Your task to perform on an android device: move an email to a new category in the gmail app Image 0: 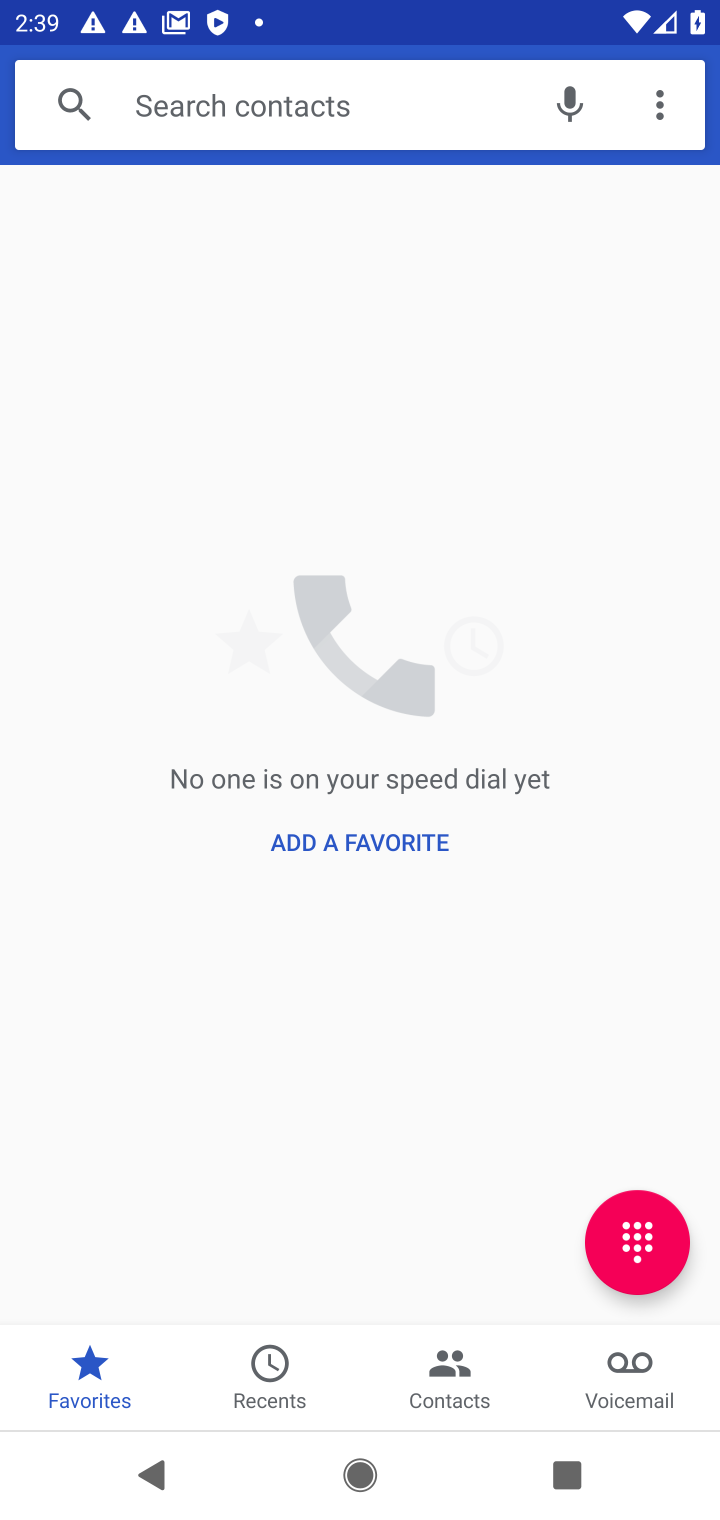
Step 0: press home button
Your task to perform on an android device: move an email to a new category in the gmail app Image 1: 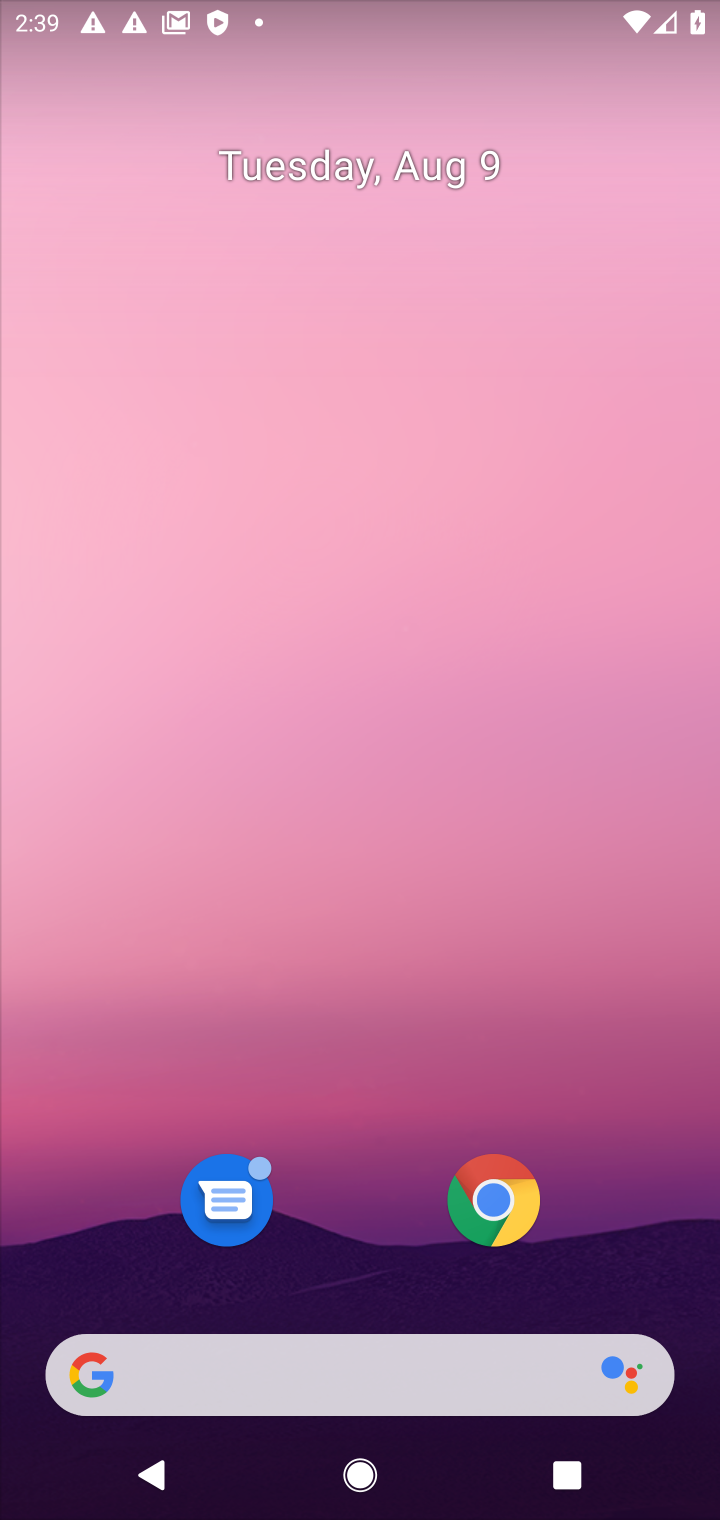
Step 1: drag from (313, 1143) to (227, 92)
Your task to perform on an android device: move an email to a new category in the gmail app Image 2: 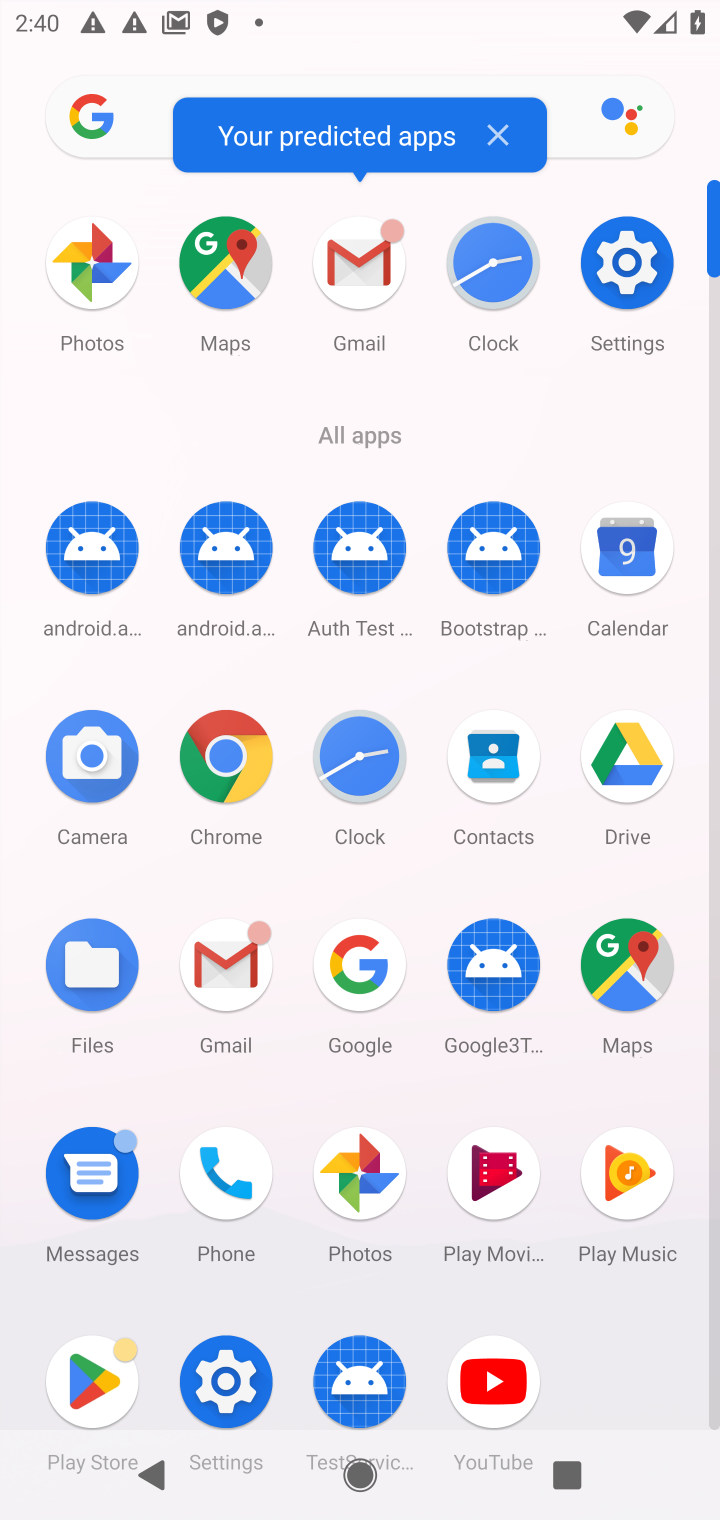
Step 2: click (220, 1002)
Your task to perform on an android device: move an email to a new category in the gmail app Image 3: 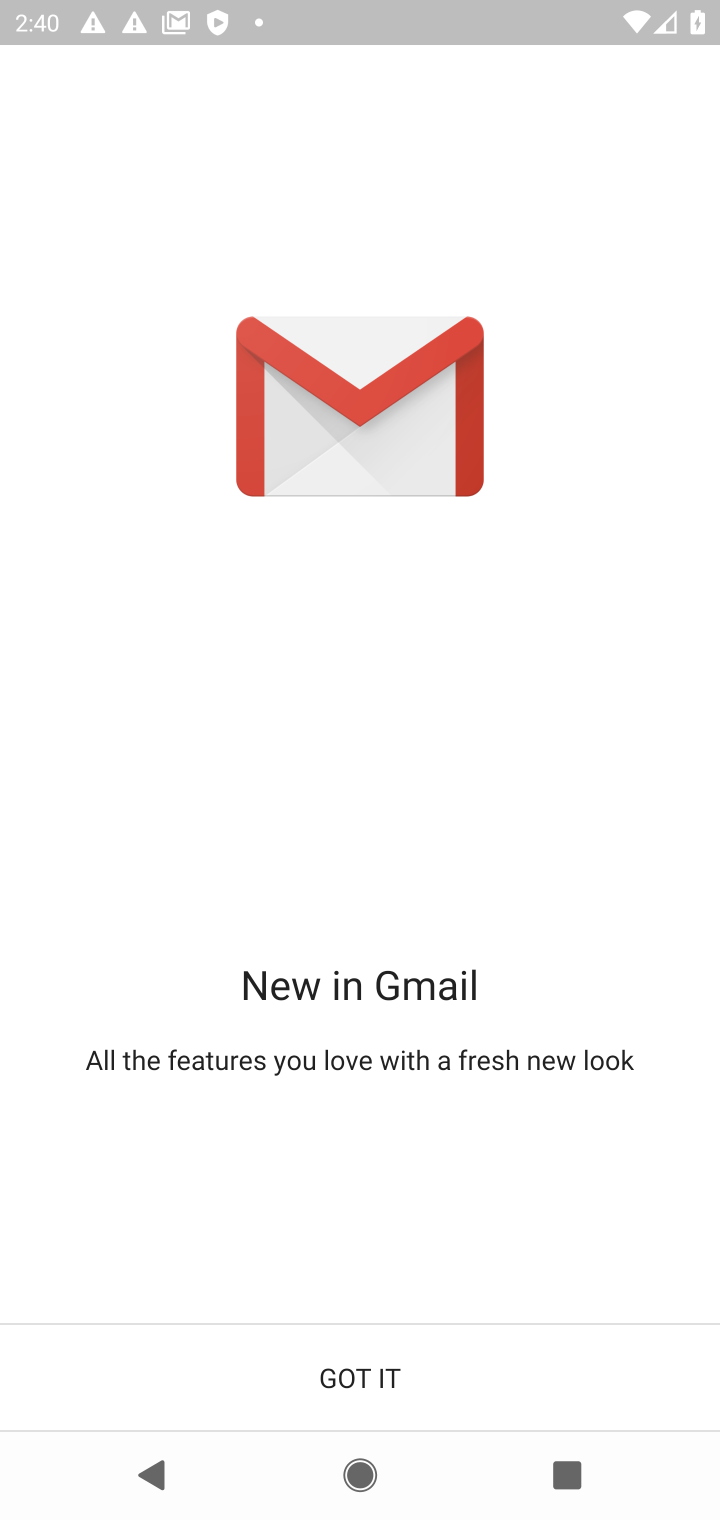
Step 3: click (355, 1389)
Your task to perform on an android device: move an email to a new category in the gmail app Image 4: 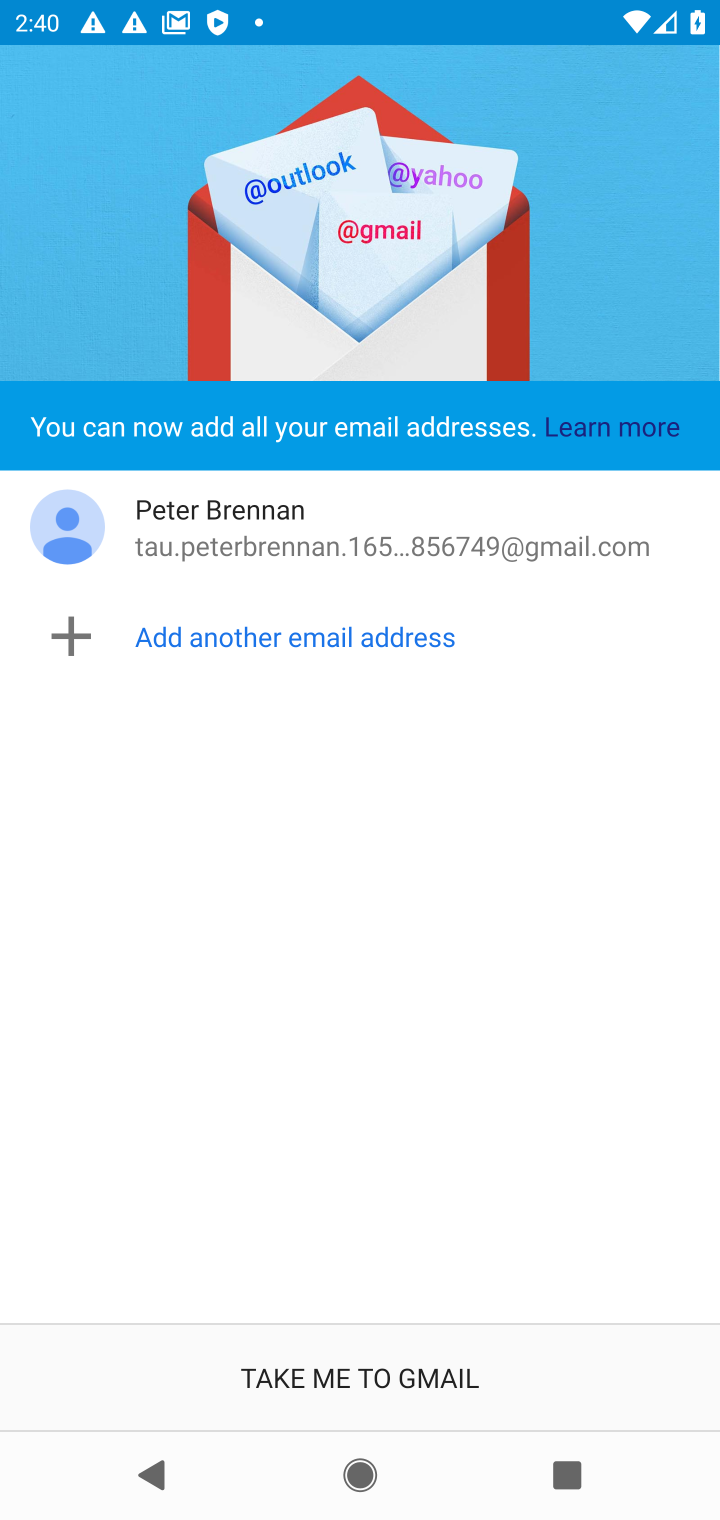
Step 4: click (351, 1386)
Your task to perform on an android device: move an email to a new category in the gmail app Image 5: 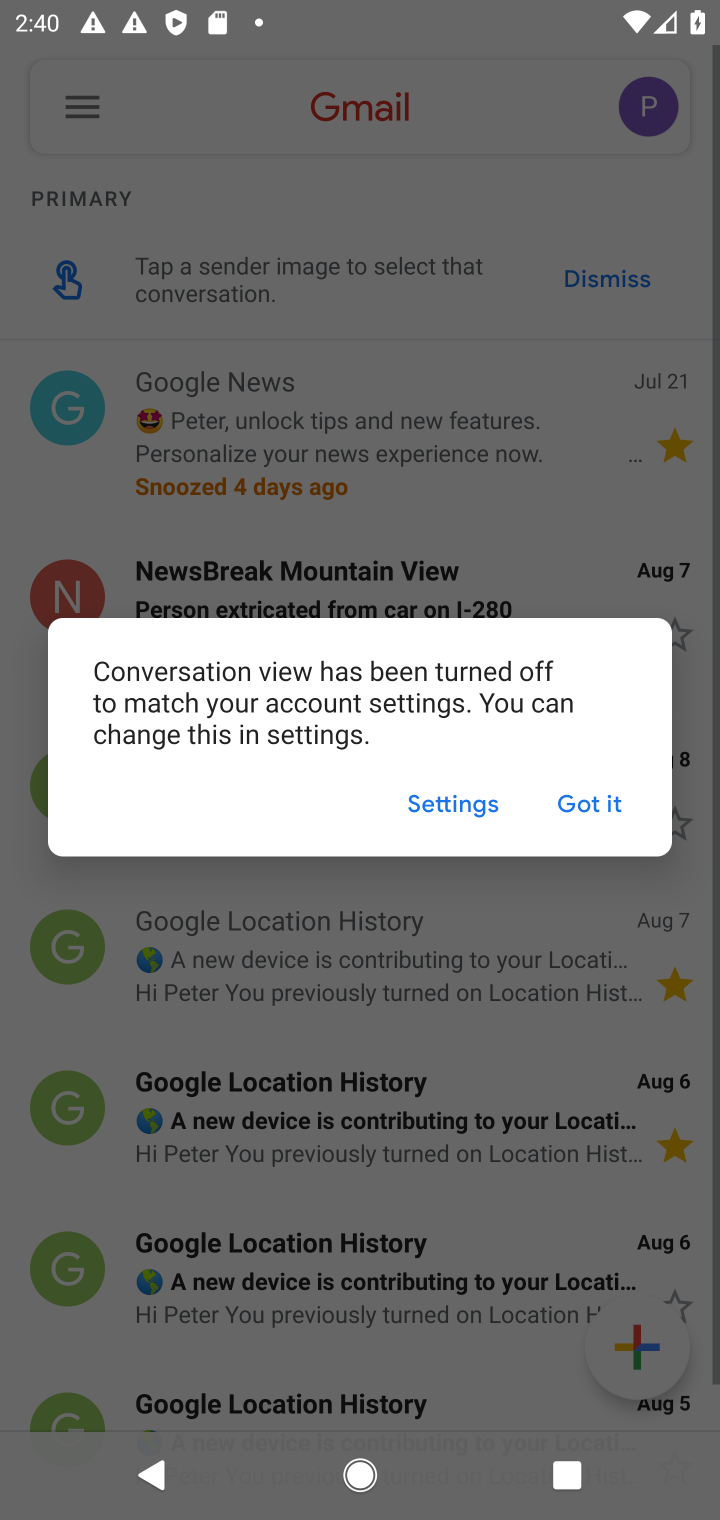
Step 5: click (562, 825)
Your task to perform on an android device: move an email to a new category in the gmail app Image 6: 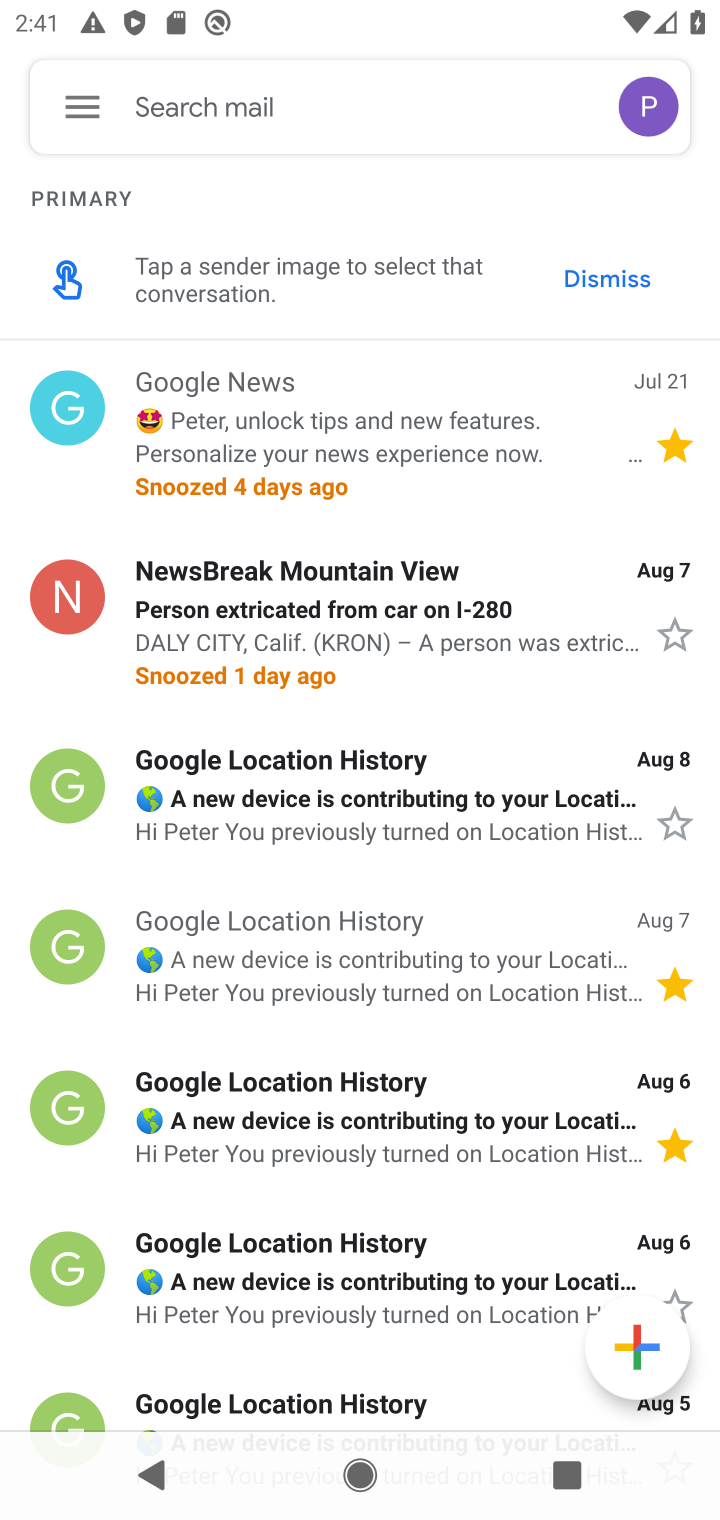
Step 6: click (324, 597)
Your task to perform on an android device: move an email to a new category in the gmail app Image 7: 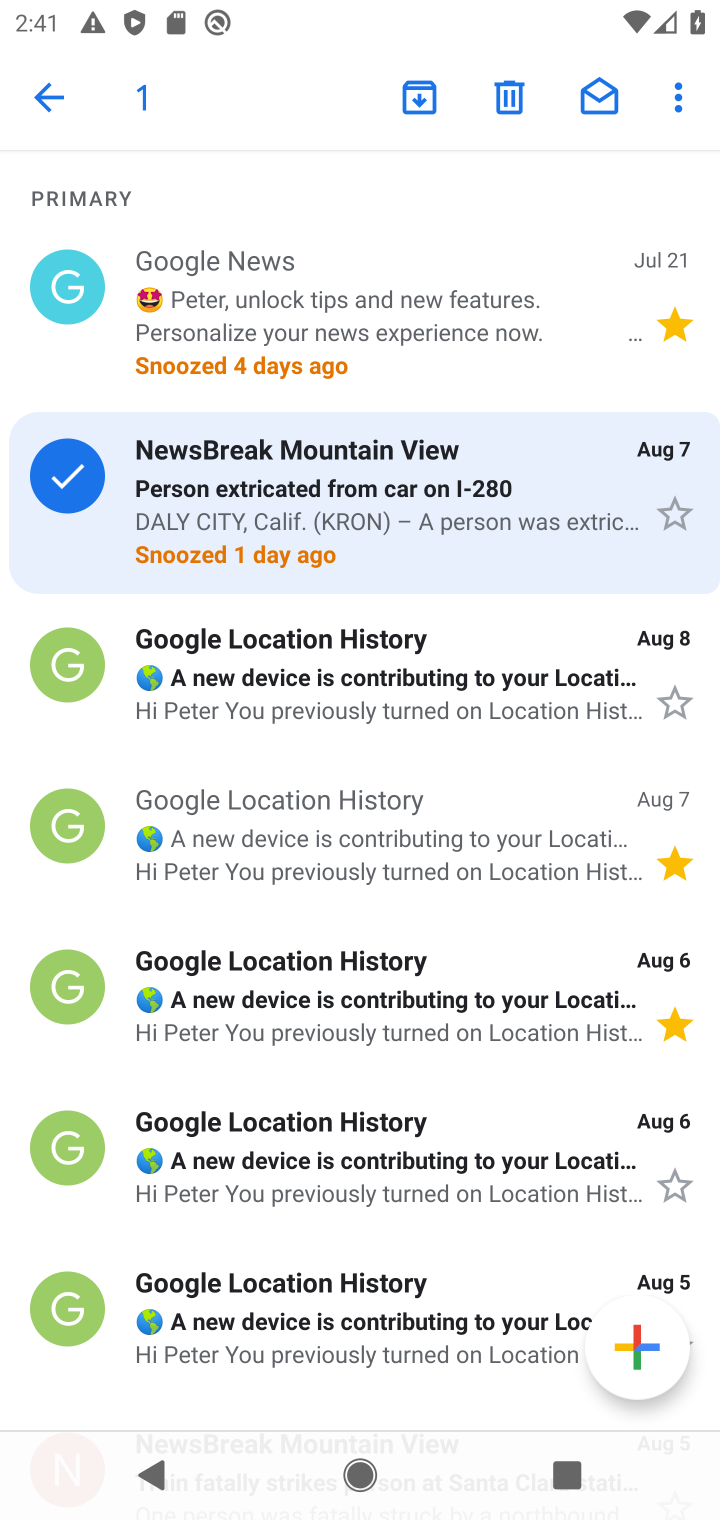
Step 7: click (676, 117)
Your task to perform on an android device: move an email to a new category in the gmail app Image 8: 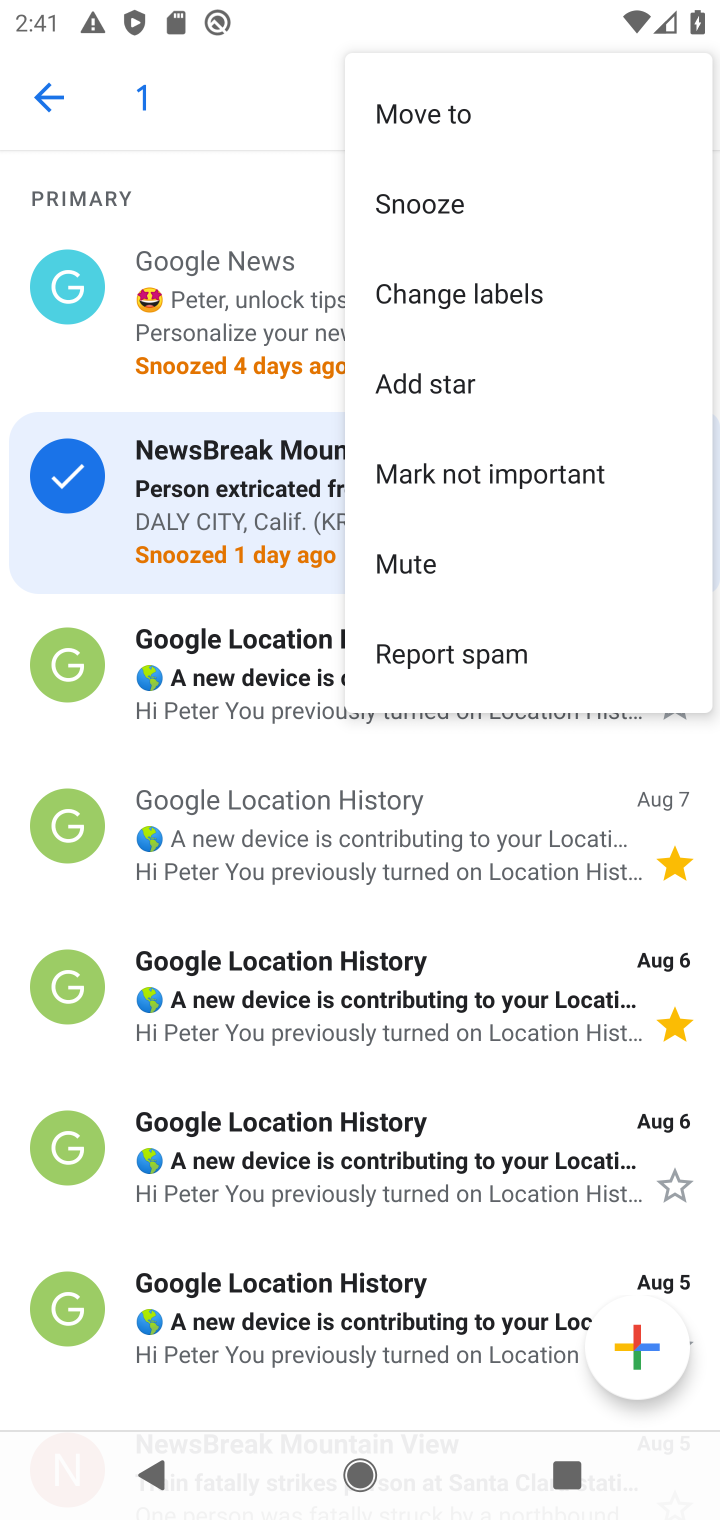
Step 8: click (407, 136)
Your task to perform on an android device: move an email to a new category in the gmail app Image 9: 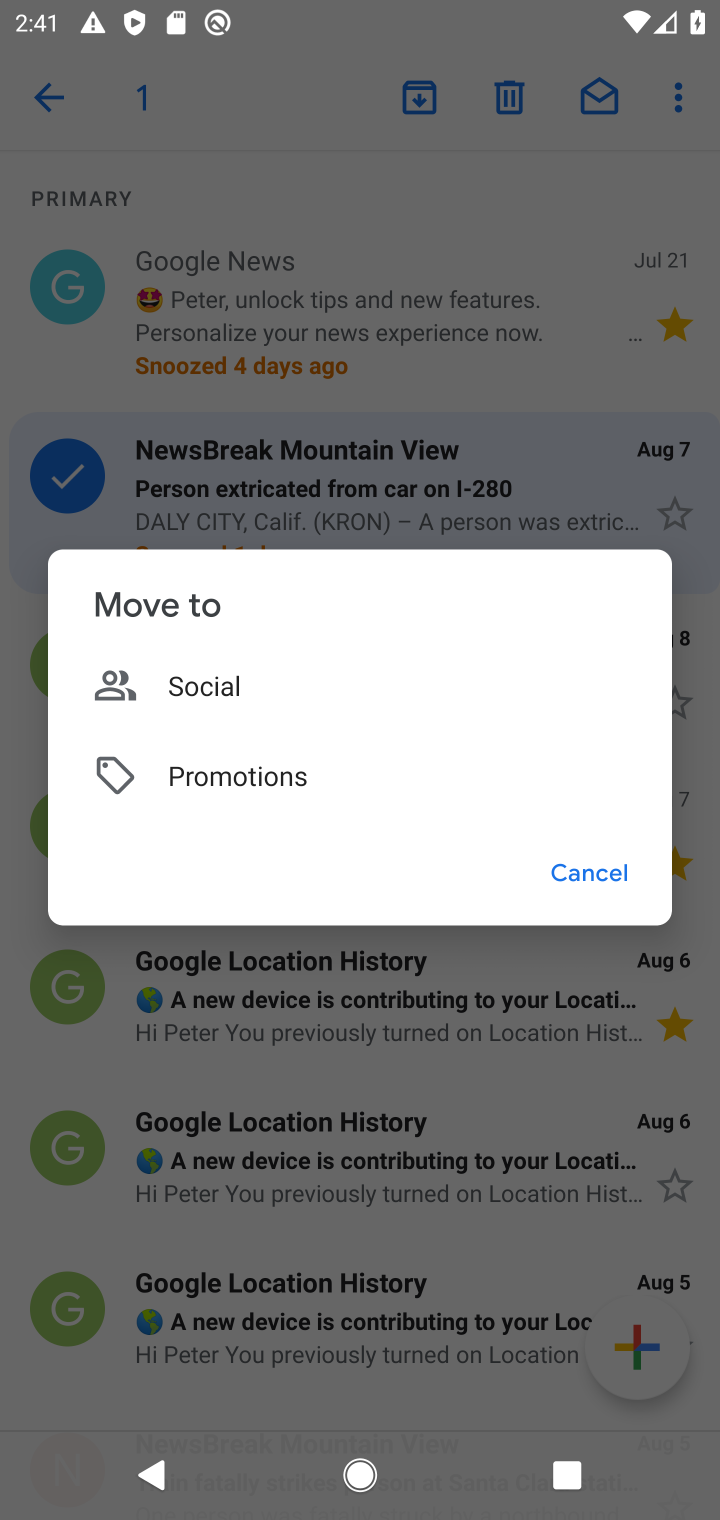
Step 9: click (222, 702)
Your task to perform on an android device: move an email to a new category in the gmail app Image 10: 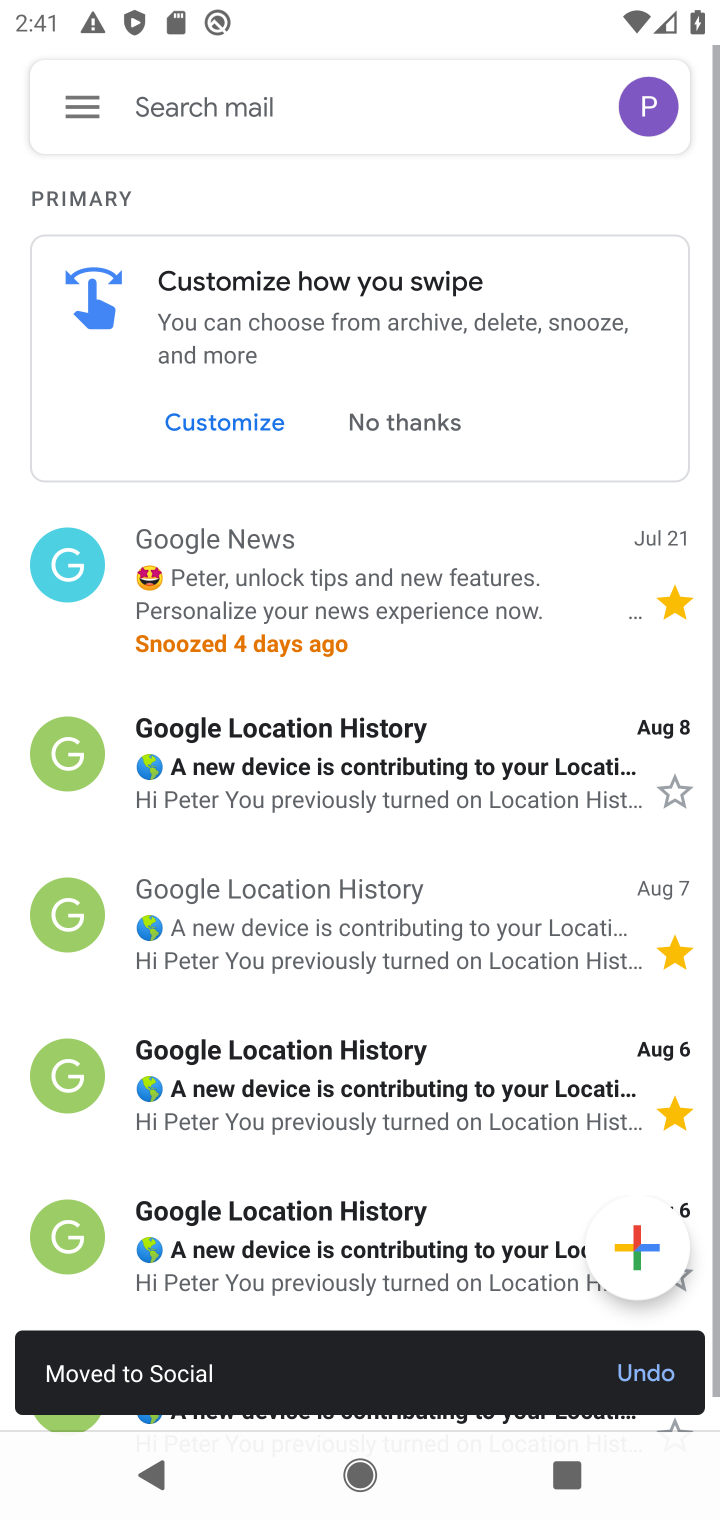
Step 10: task complete